Your task to perform on an android device: manage bookmarks in the chrome app Image 0: 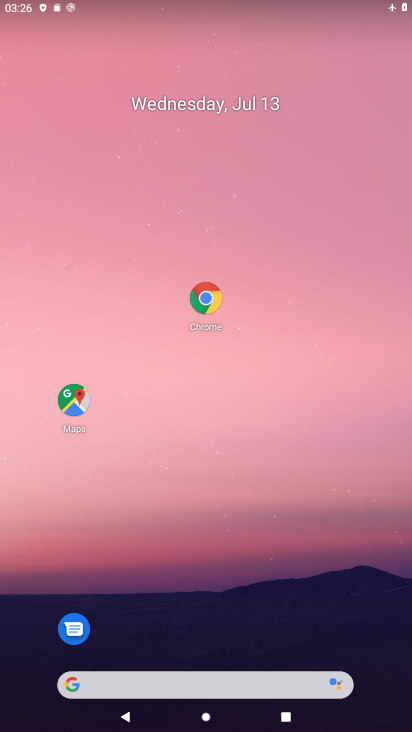
Step 0: click (201, 297)
Your task to perform on an android device: manage bookmarks in the chrome app Image 1: 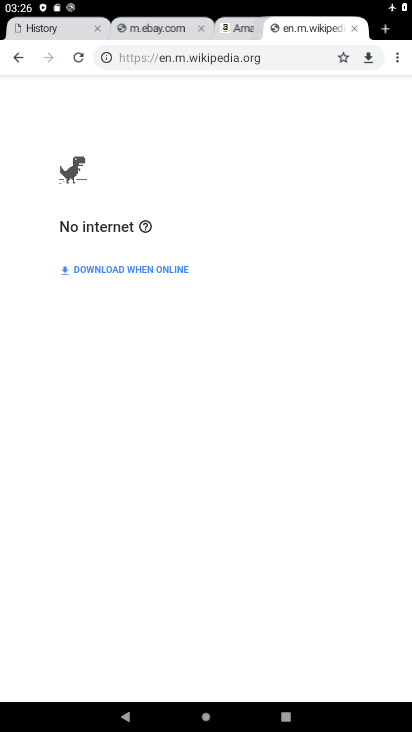
Step 1: click (393, 55)
Your task to perform on an android device: manage bookmarks in the chrome app Image 2: 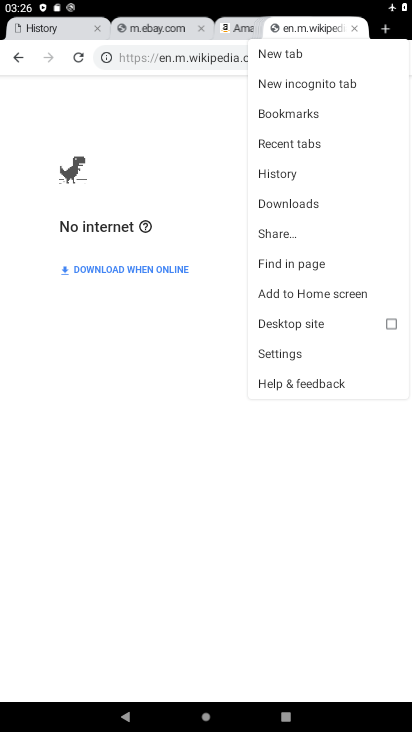
Step 2: click (295, 115)
Your task to perform on an android device: manage bookmarks in the chrome app Image 3: 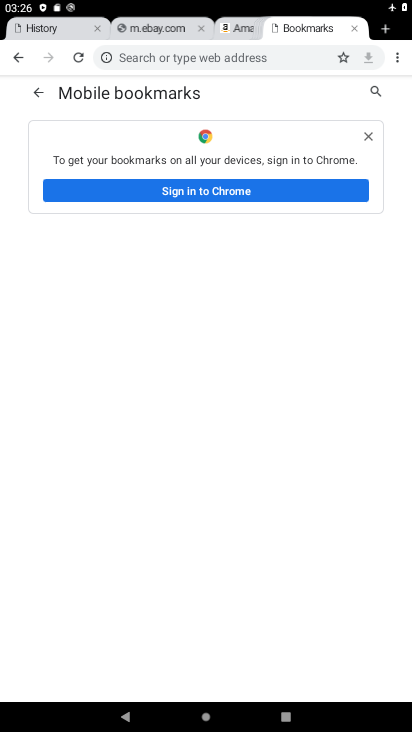
Step 3: click (352, 125)
Your task to perform on an android device: manage bookmarks in the chrome app Image 4: 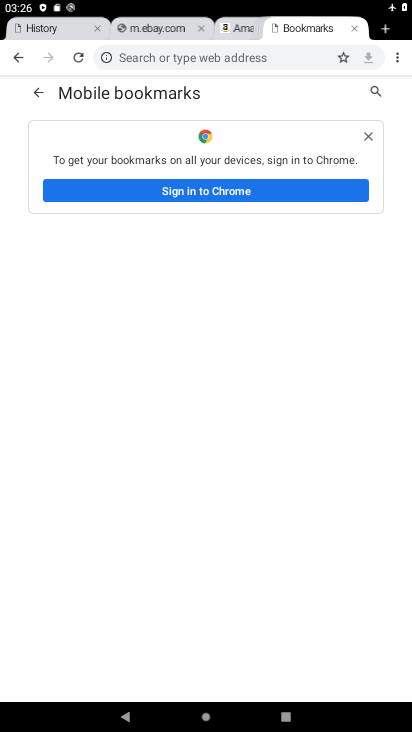
Step 4: click (359, 136)
Your task to perform on an android device: manage bookmarks in the chrome app Image 5: 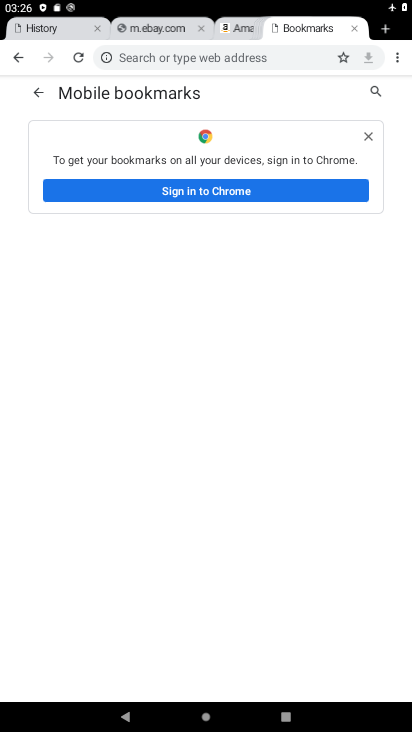
Step 5: task complete